Your task to perform on an android device: check out phone information Image 0: 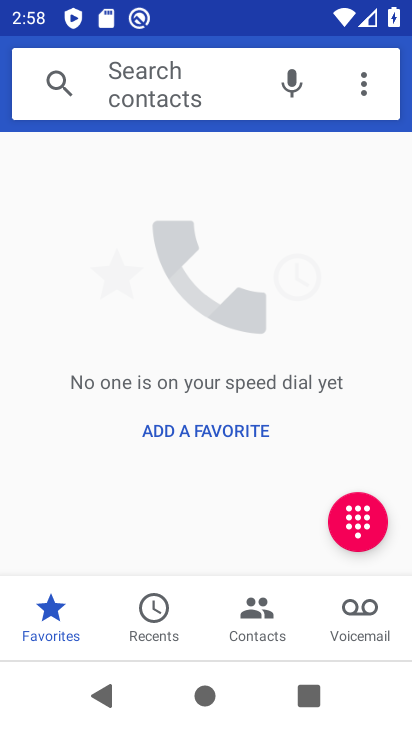
Step 0: press home button
Your task to perform on an android device: check out phone information Image 1: 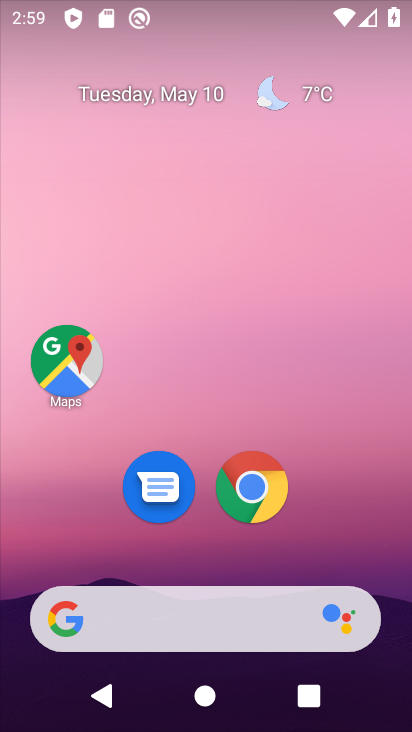
Step 1: drag from (349, 520) to (316, 56)
Your task to perform on an android device: check out phone information Image 2: 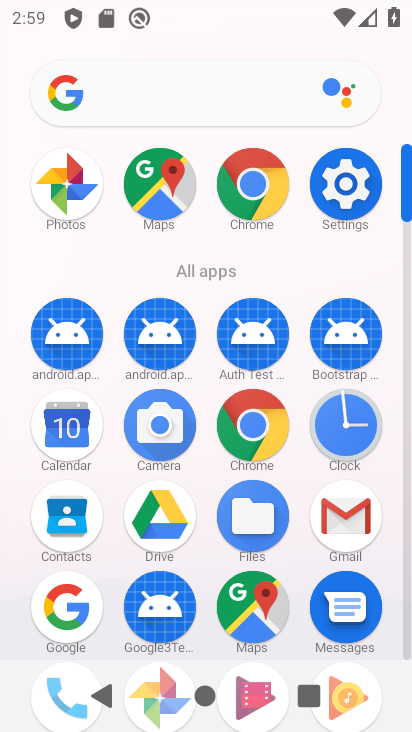
Step 2: drag from (120, 572) to (131, 286)
Your task to perform on an android device: check out phone information Image 3: 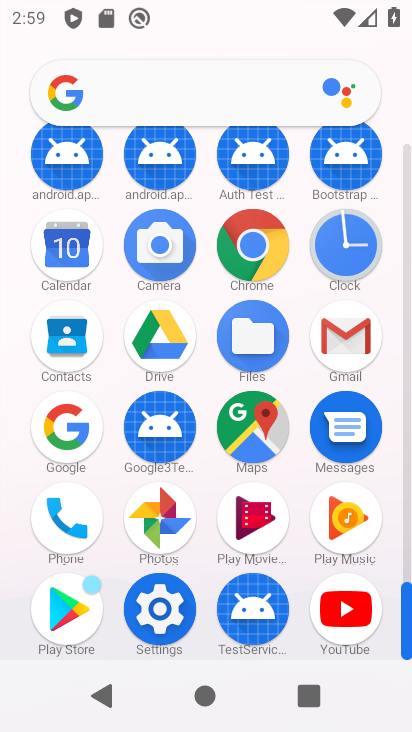
Step 3: click (71, 523)
Your task to perform on an android device: check out phone information Image 4: 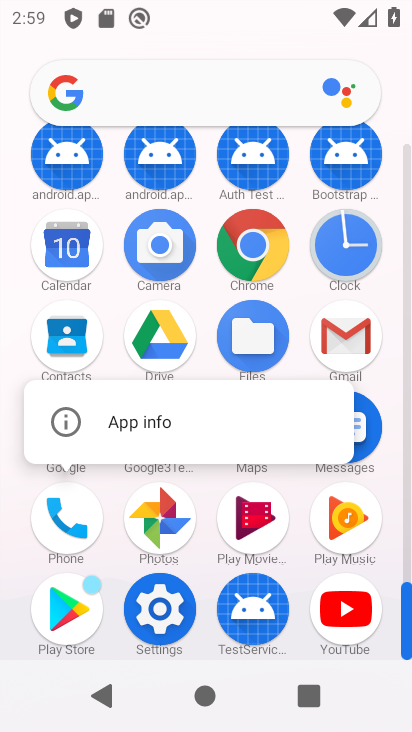
Step 4: click (115, 425)
Your task to perform on an android device: check out phone information Image 5: 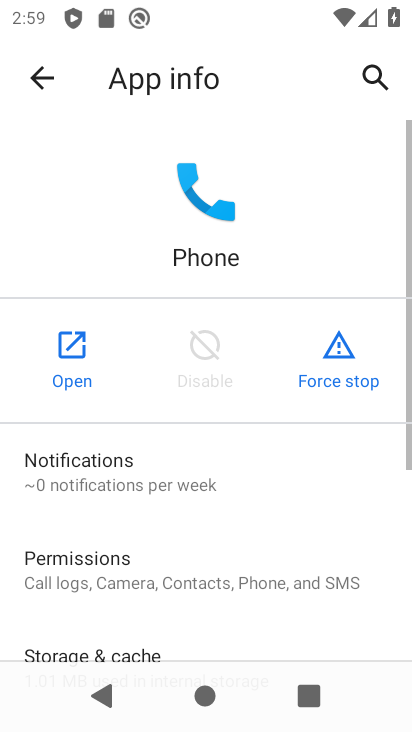
Step 5: task complete